Your task to perform on an android device: turn on translation in the chrome app Image 0: 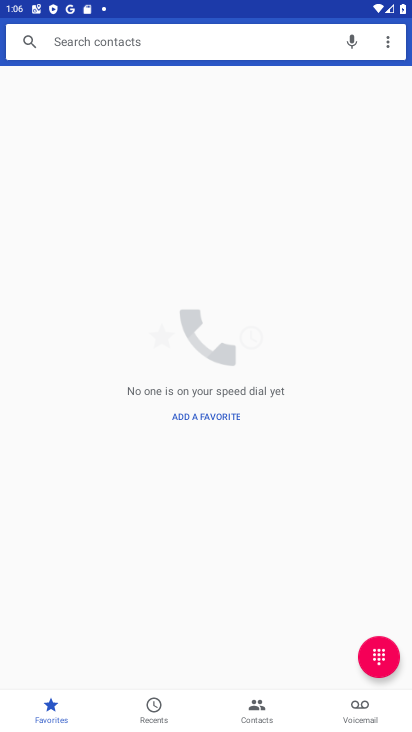
Step 0: press home button
Your task to perform on an android device: turn on translation in the chrome app Image 1: 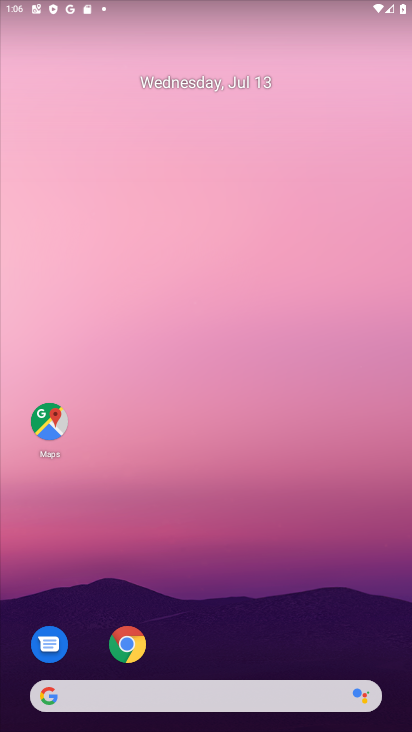
Step 1: drag from (274, 619) to (194, 101)
Your task to perform on an android device: turn on translation in the chrome app Image 2: 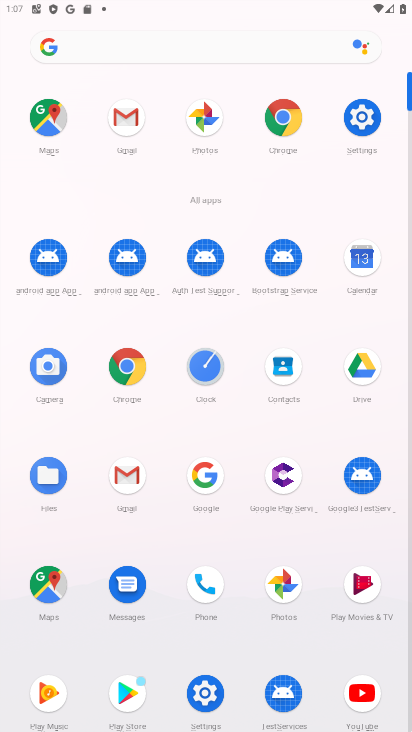
Step 2: click (282, 124)
Your task to perform on an android device: turn on translation in the chrome app Image 3: 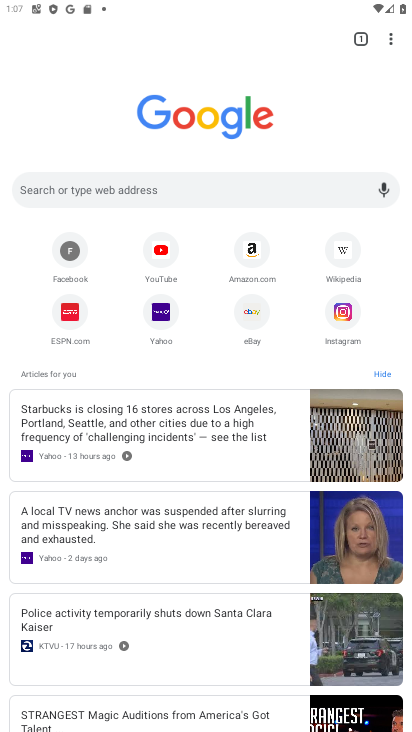
Step 3: click (394, 47)
Your task to perform on an android device: turn on translation in the chrome app Image 4: 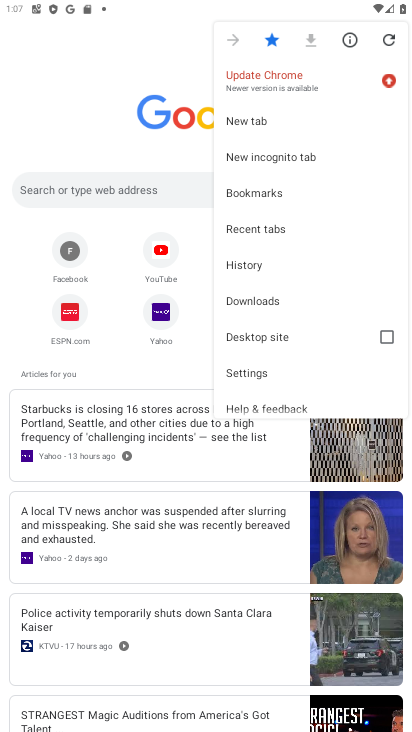
Step 4: click (321, 364)
Your task to perform on an android device: turn on translation in the chrome app Image 5: 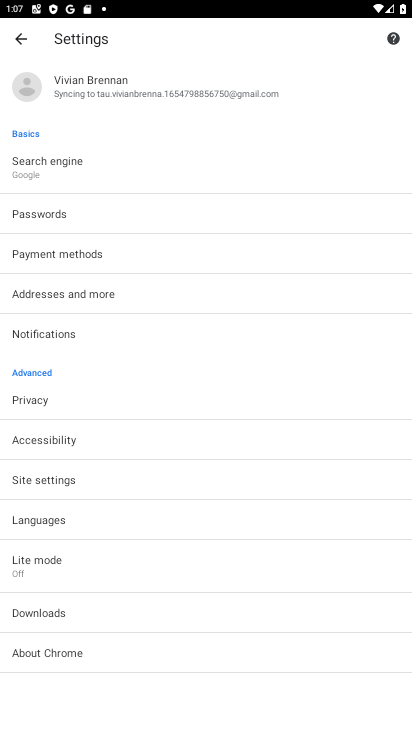
Step 5: click (97, 520)
Your task to perform on an android device: turn on translation in the chrome app Image 6: 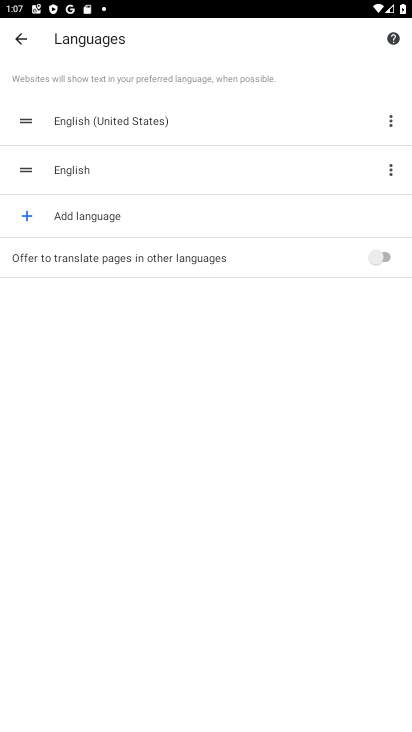
Step 6: click (386, 259)
Your task to perform on an android device: turn on translation in the chrome app Image 7: 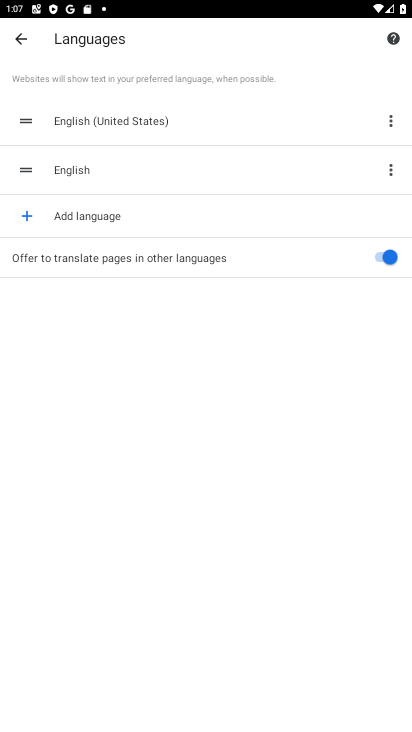
Step 7: task complete